Your task to perform on an android device: Set the phone to "Do not disturb". Image 0: 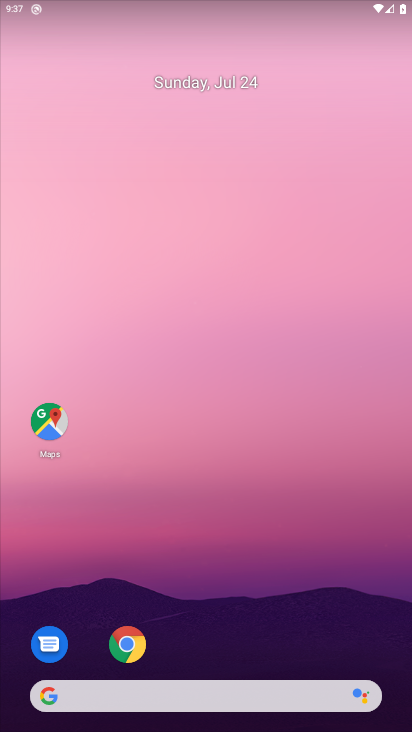
Step 0: drag from (158, 6) to (136, 535)
Your task to perform on an android device: Set the phone to "Do not disturb". Image 1: 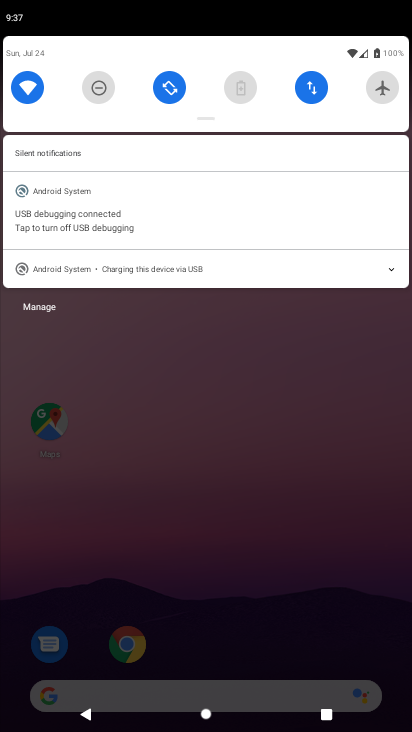
Step 1: click (95, 82)
Your task to perform on an android device: Set the phone to "Do not disturb". Image 2: 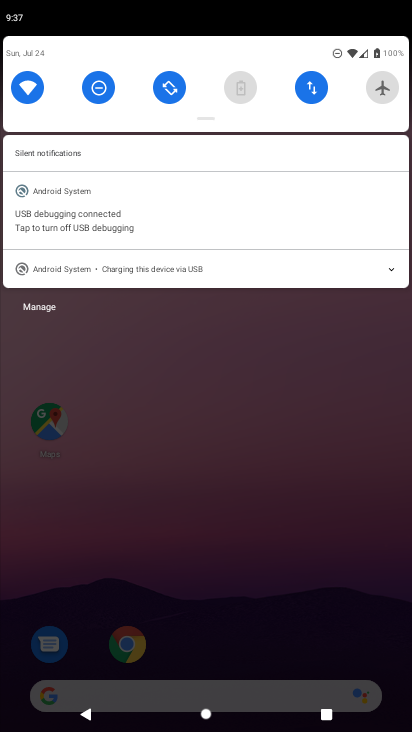
Step 2: task complete